Your task to perform on an android device: turn off javascript in the chrome app Image 0: 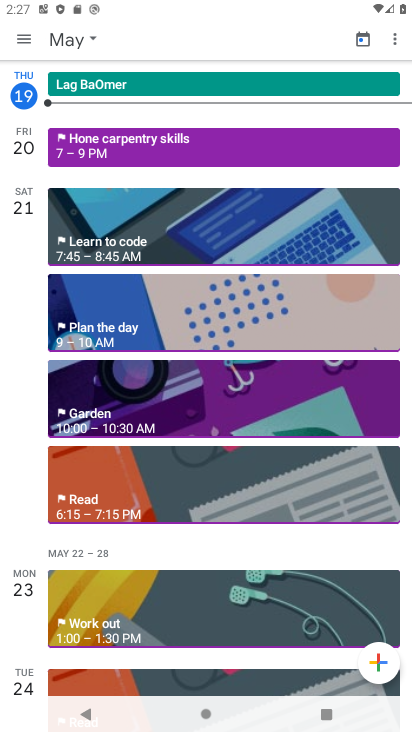
Step 0: press home button
Your task to perform on an android device: turn off javascript in the chrome app Image 1: 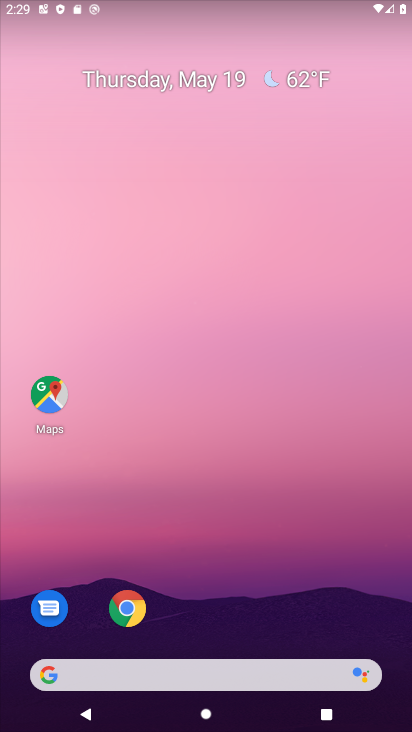
Step 1: click (138, 611)
Your task to perform on an android device: turn off javascript in the chrome app Image 2: 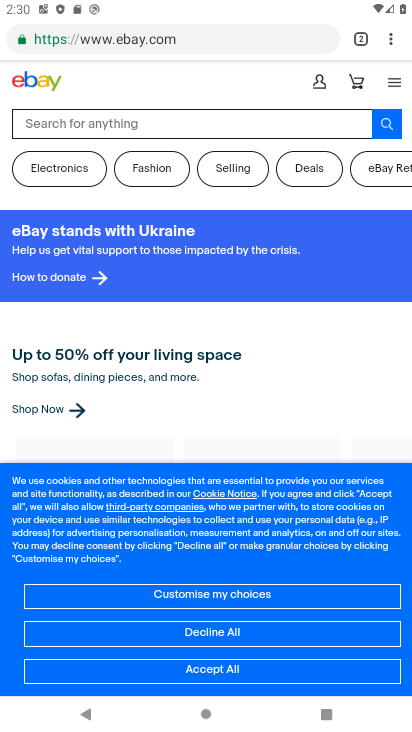
Step 2: click (393, 35)
Your task to perform on an android device: turn off javascript in the chrome app Image 3: 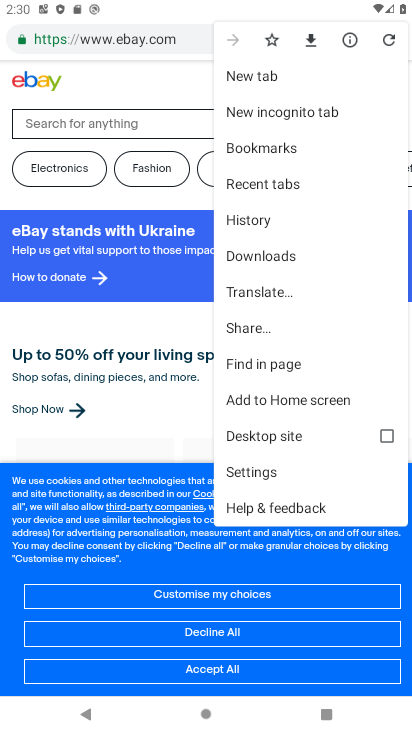
Step 3: click (278, 470)
Your task to perform on an android device: turn off javascript in the chrome app Image 4: 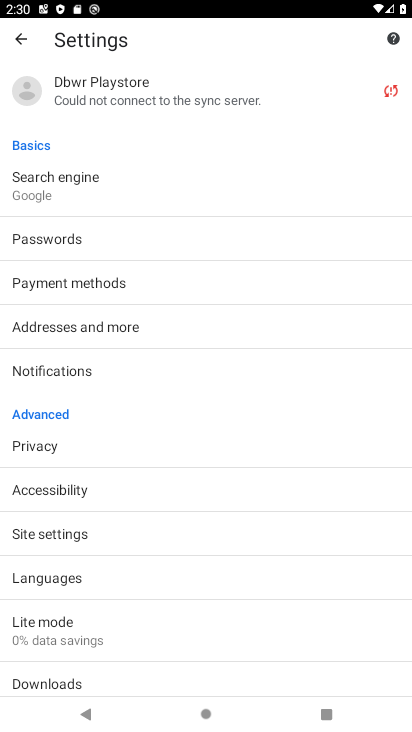
Step 4: click (182, 546)
Your task to perform on an android device: turn off javascript in the chrome app Image 5: 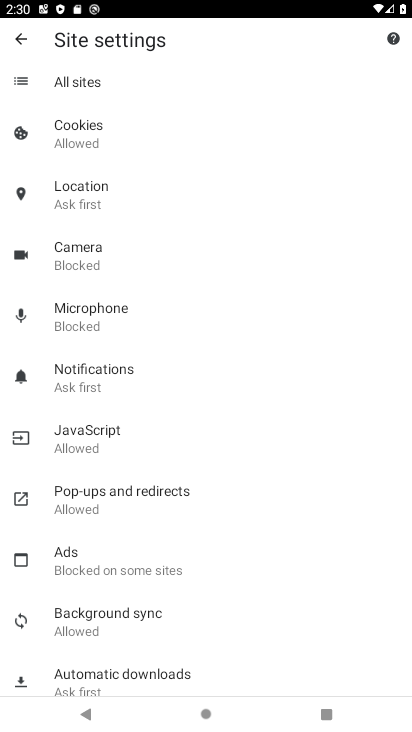
Step 5: click (153, 423)
Your task to perform on an android device: turn off javascript in the chrome app Image 6: 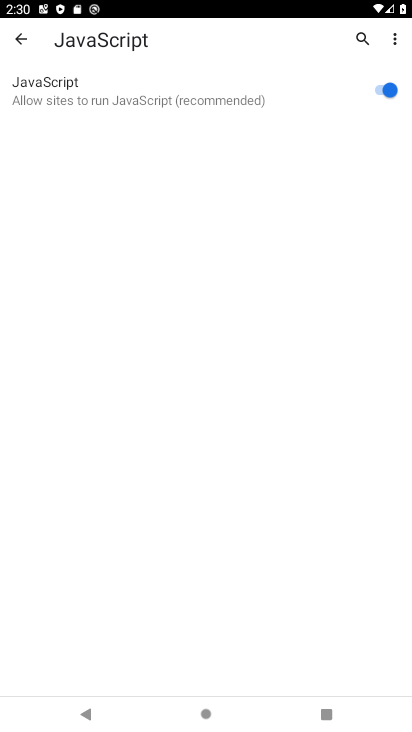
Step 6: click (371, 71)
Your task to perform on an android device: turn off javascript in the chrome app Image 7: 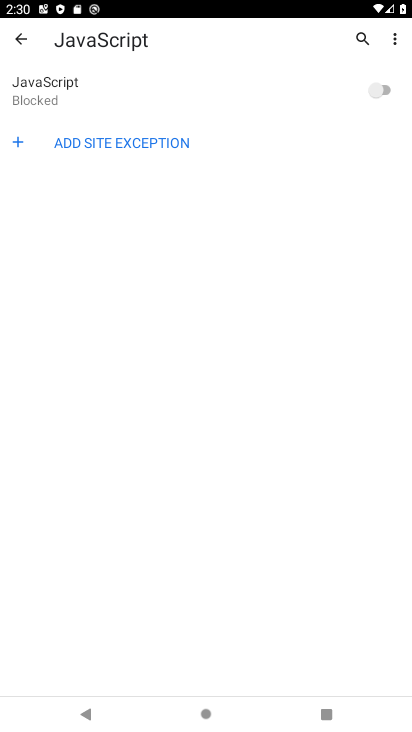
Step 7: task complete